Your task to perform on an android device: empty trash in the gmail app Image 0: 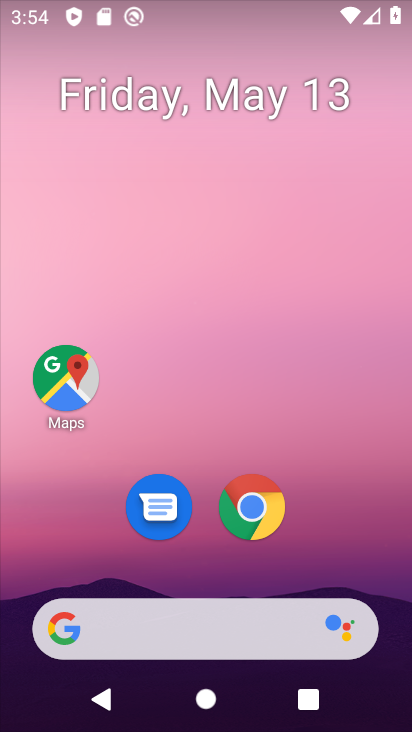
Step 0: drag from (336, 433) to (232, 45)
Your task to perform on an android device: empty trash in the gmail app Image 1: 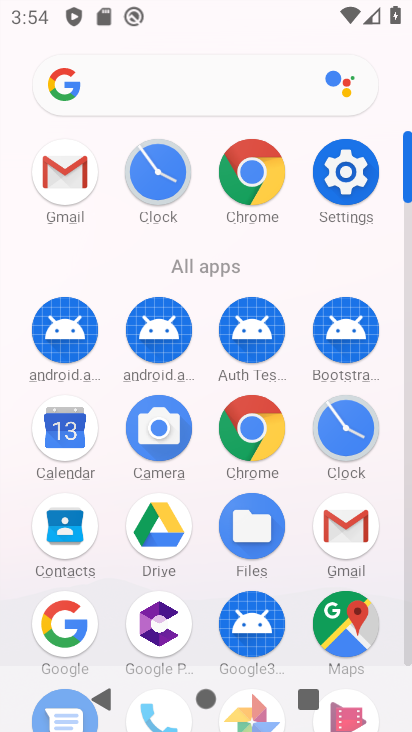
Step 1: click (43, 178)
Your task to perform on an android device: empty trash in the gmail app Image 2: 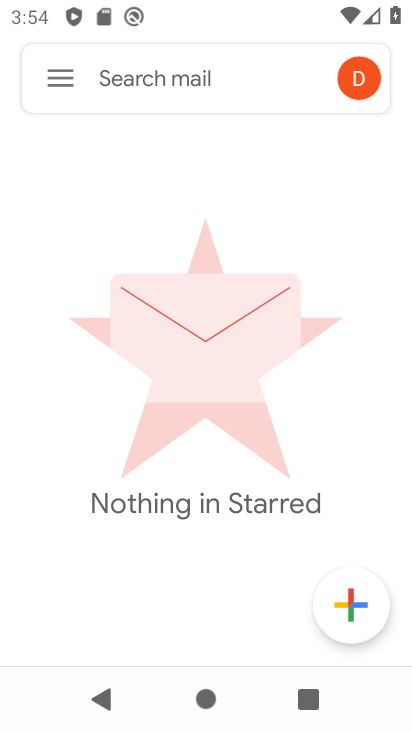
Step 2: click (62, 77)
Your task to perform on an android device: empty trash in the gmail app Image 3: 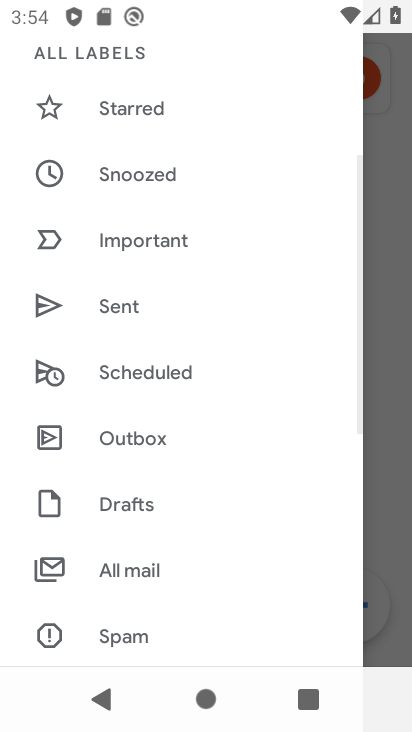
Step 3: drag from (121, 524) to (203, 129)
Your task to perform on an android device: empty trash in the gmail app Image 4: 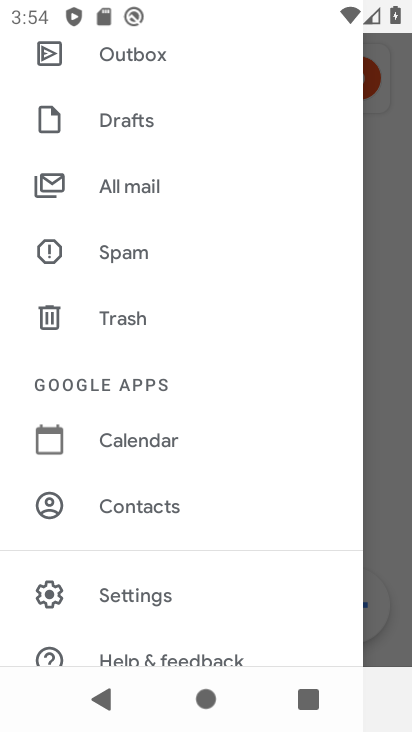
Step 4: click (134, 313)
Your task to perform on an android device: empty trash in the gmail app Image 5: 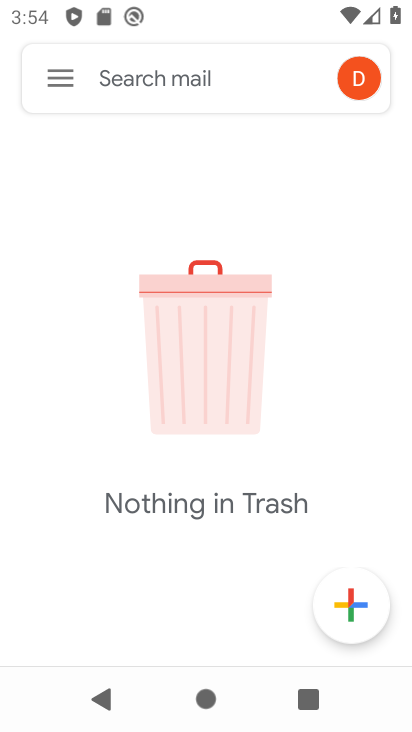
Step 5: task complete